Your task to perform on an android device: toggle priority inbox in the gmail app Image 0: 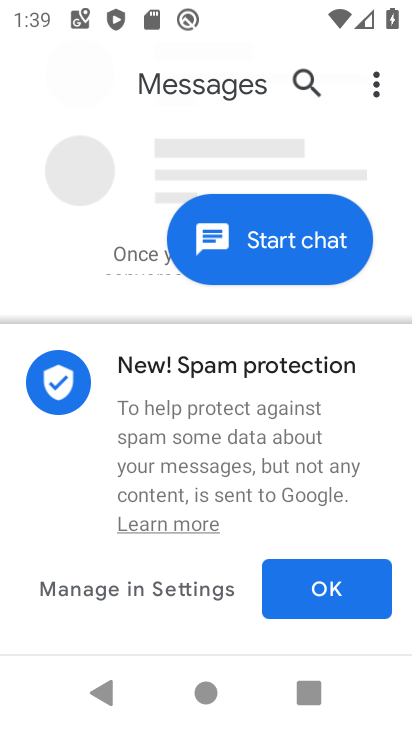
Step 0: press home button
Your task to perform on an android device: toggle priority inbox in the gmail app Image 1: 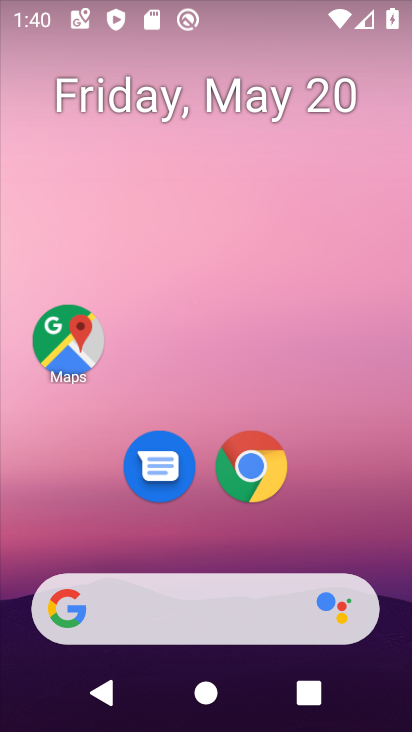
Step 1: drag from (211, 566) to (134, 98)
Your task to perform on an android device: toggle priority inbox in the gmail app Image 2: 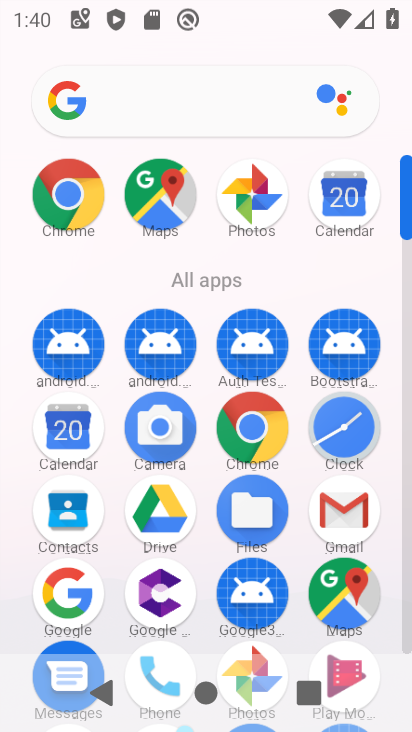
Step 2: click (348, 503)
Your task to perform on an android device: toggle priority inbox in the gmail app Image 3: 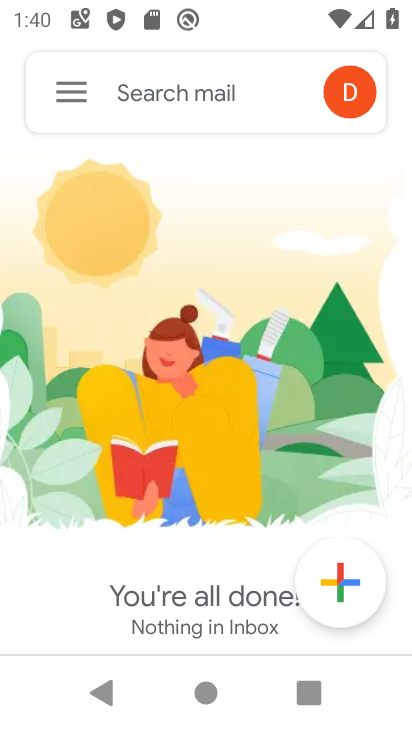
Step 3: click (80, 99)
Your task to perform on an android device: toggle priority inbox in the gmail app Image 4: 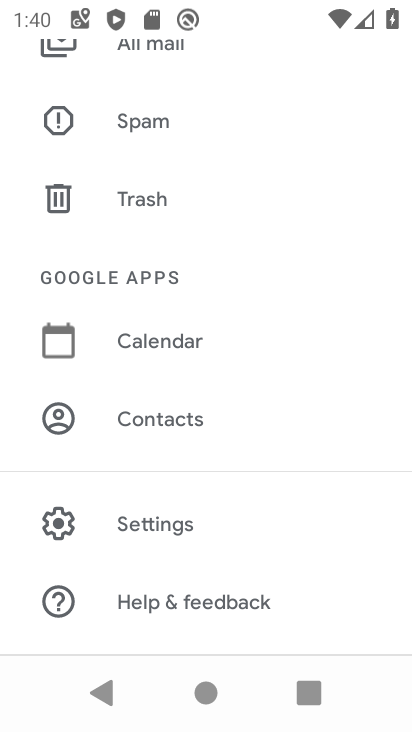
Step 4: click (166, 518)
Your task to perform on an android device: toggle priority inbox in the gmail app Image 5: 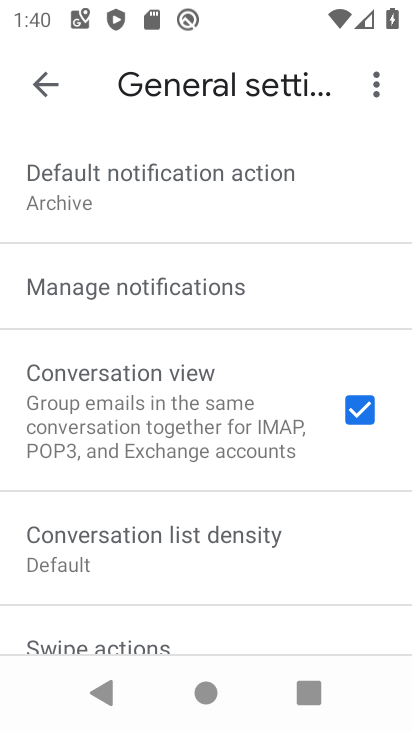
Step 5: click (65, 97)
Your task to perform on an android device: toggle priority inbox in the gmail app Image 6: 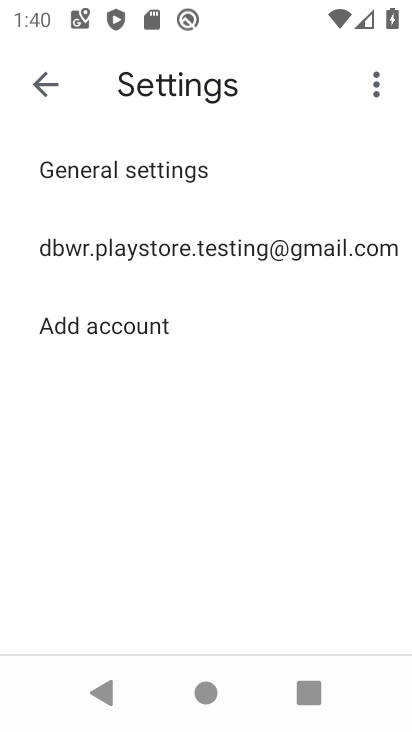
Step 6: click (120, 254)
Your task to perform on an android device: toggle priority inbox in the gmail app Image 7: 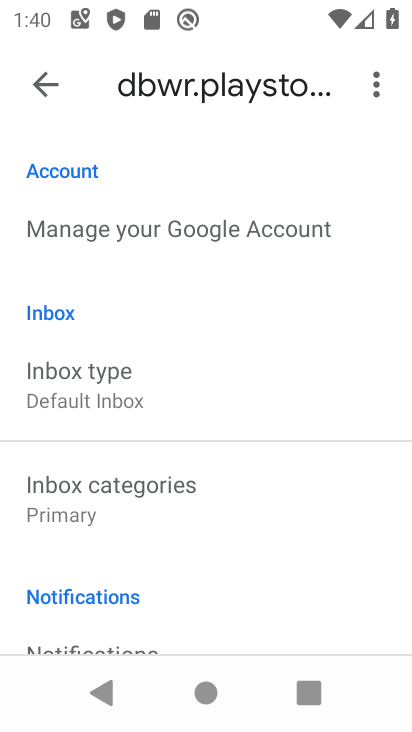
Step 7: click (130, 375)
Your task to perform on an android device: toggle priority inbox in the gmail app Image 8: 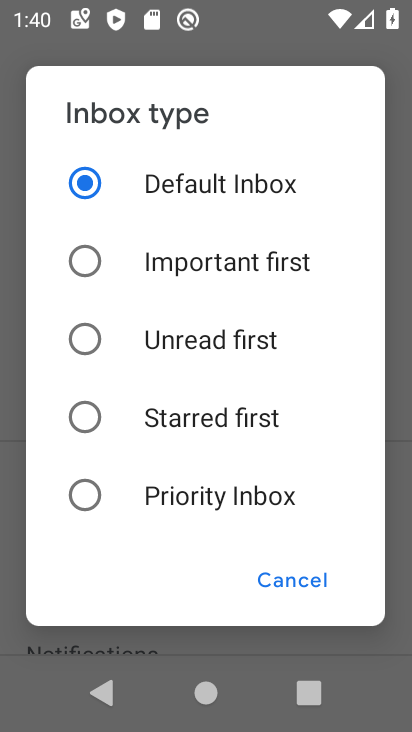
Step 8: click (210, 501)
Your task to perform on an android device: toggle priority inbox in the gmail app Image 9: 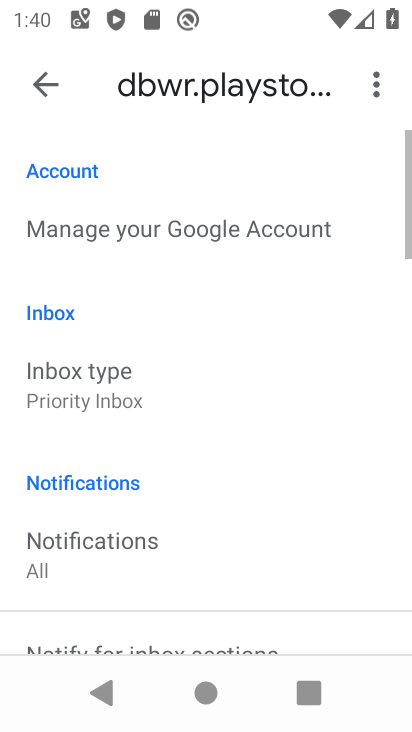
Step 9: task complete